Your task to perform on an android device: Open privacy settings Image 0: 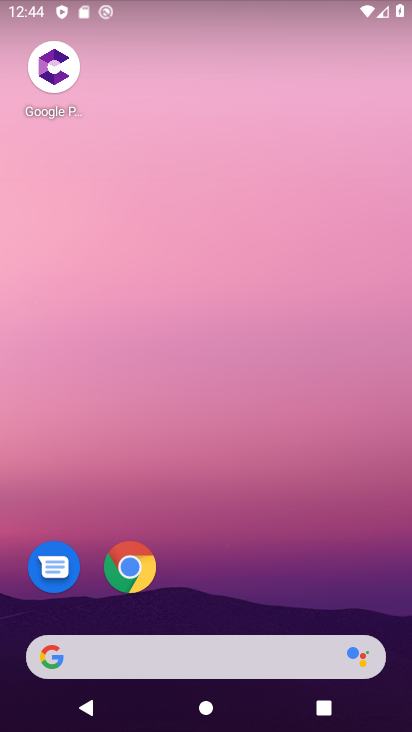
Step 0: click (144, 572)
Your task to perform on an android device: Open privacy settings Image 1: 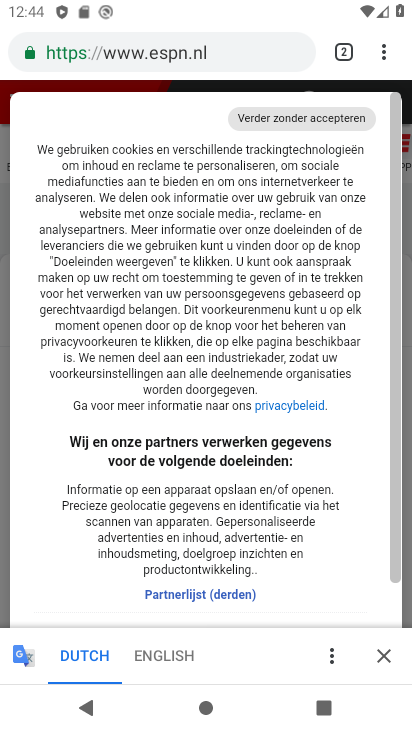
Step 1: click (387, 55)
Your task to perform on an android device: Open privacy settings Image 2: 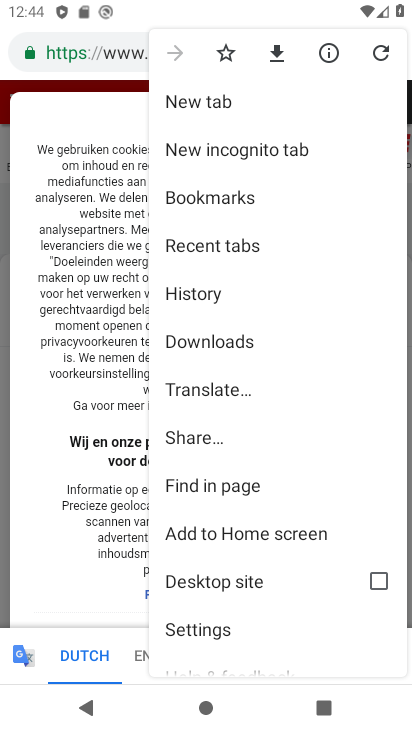
Step 2: click (256, 635)
Your task to perform on an android device: Open privacy settings Image 3: 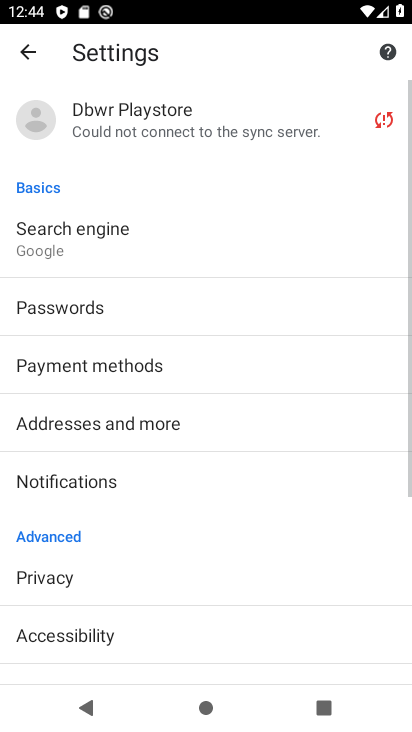
Step 3: click (97, 589)
Your task to perform on an android device: Open privacy settings Image 4: 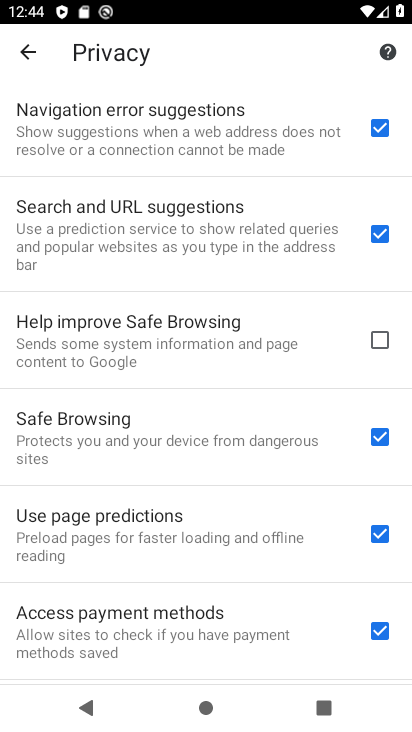
Step 4: task complete